Your task to perform on an android device: Go to eBay Image 0: 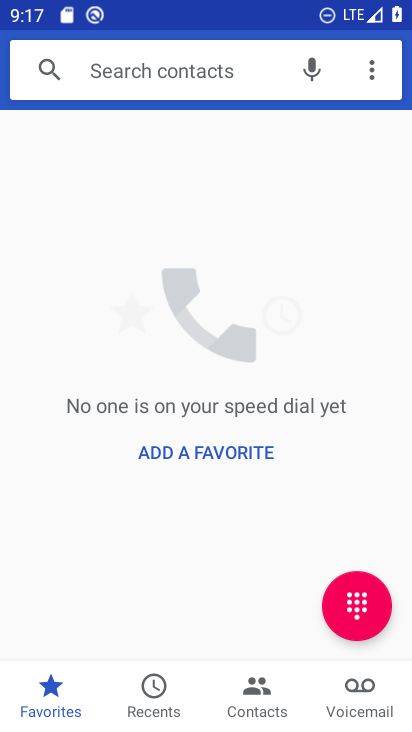
Step 0: press home button
Your task to perform on an android device: Go to eBay Image 1: 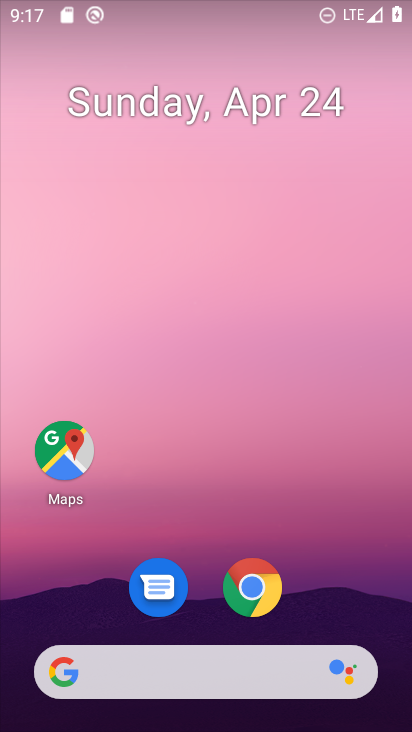
Step 1: drag from (357, 515) to (335, 201)
Your task to perform on an android device: Go to eBay Image 2: 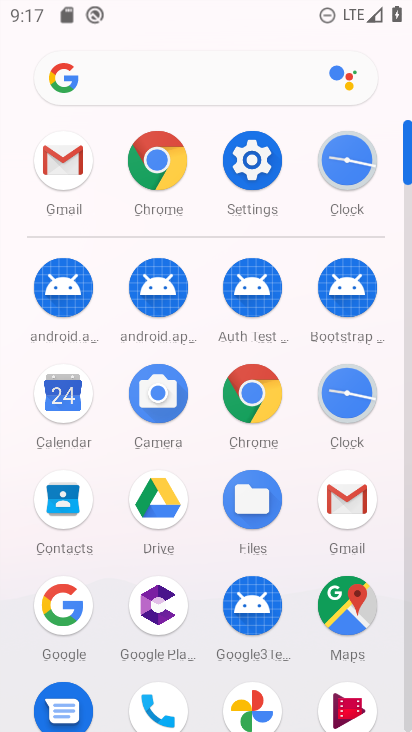
Step 2: click (160, 170)
Your task to perform on an android device: Go to eBay Image 3: 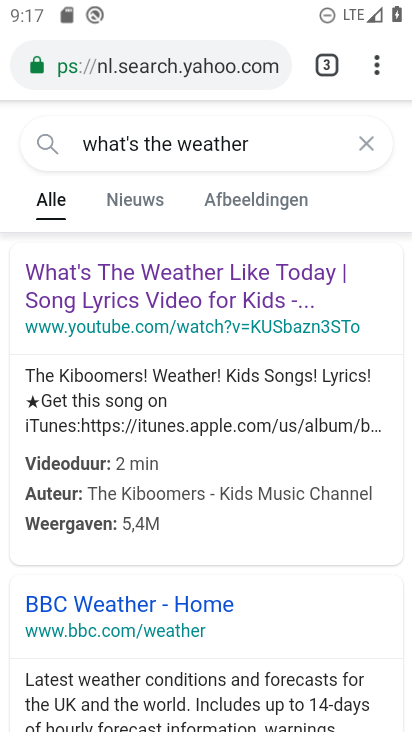
Step 3: click (198, 68)
Your task to perform on an android device: Go to eBay Image 4: 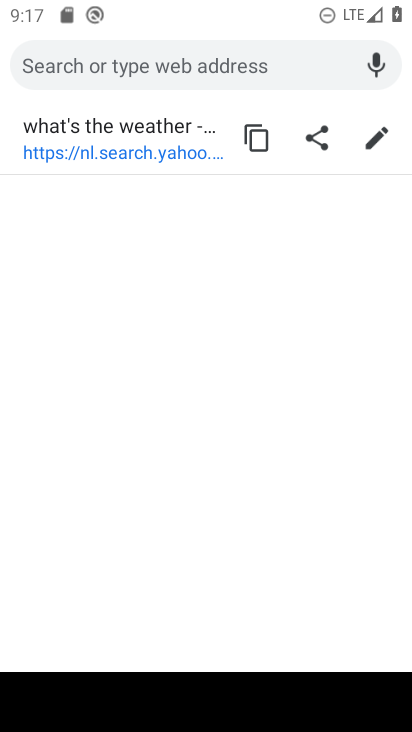
Step 4: type "ebay"
Your task to perform on an android device: Go to eBay Image 5: 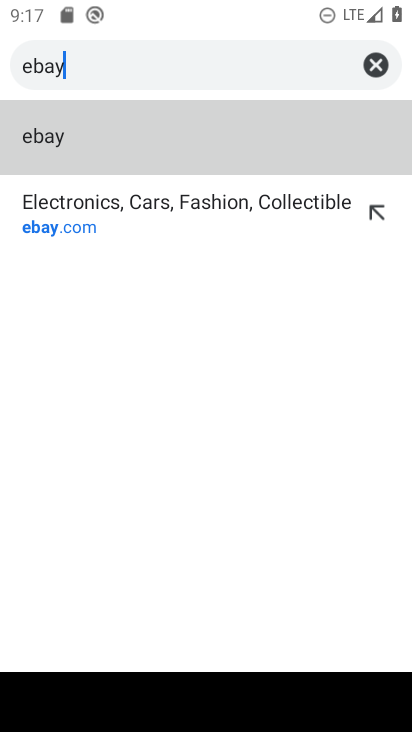
Step 5: click (57, 135)
Your task to perform on an android device: Go to eBay Image 6: 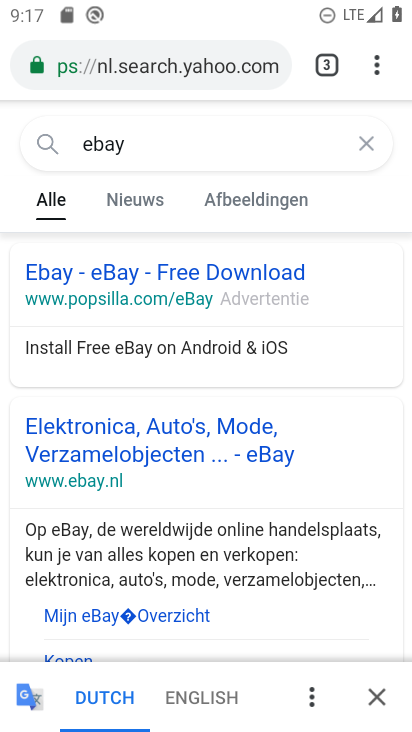
Step 6: click (89, 271)
Your task to perform on an android device: Go to eBay Image 7: 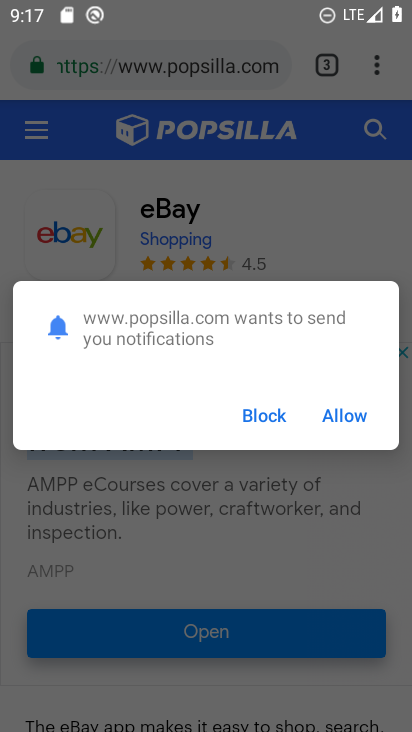
Step 7: click (275, 419)
Your task to perform on an android device: Go to eBay Image 8: 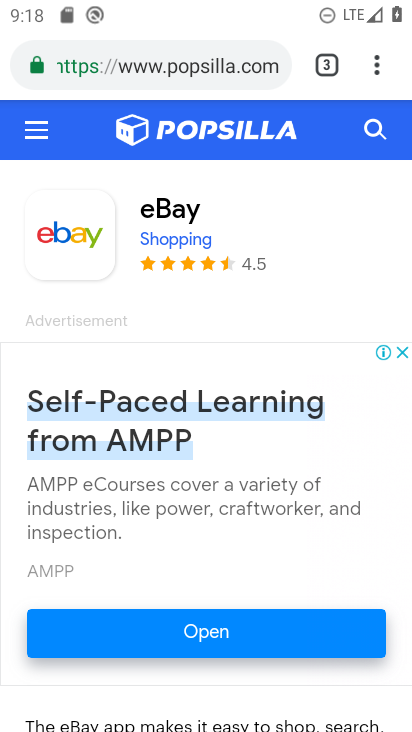
Step 8: task complete